Your task to perform on an android device: toggle pop-ups in chrome Image 0: 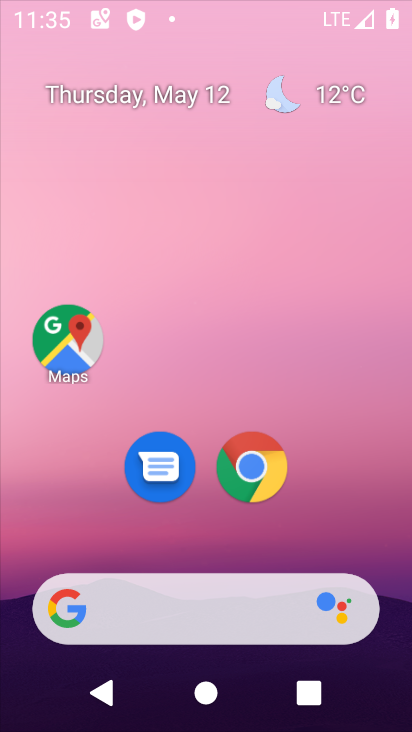
Step 0: drag from (256, 3) to (26, 110)
Your task to perform on an android device: toggle pop-ups in chrome Image 1: 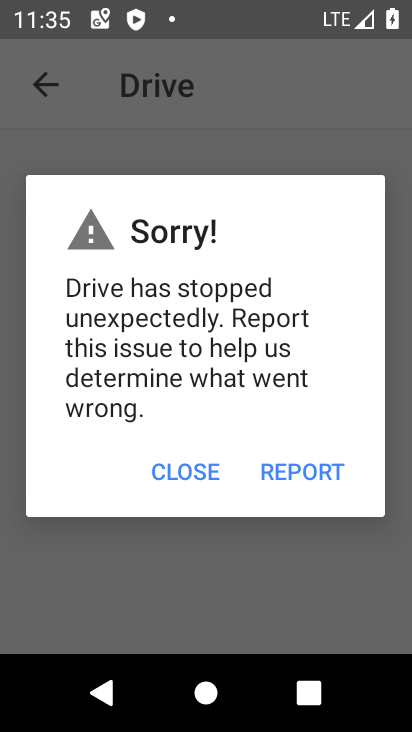
Step 1: press back button
Your task to perform on an android device: toggle pop-ups in chrome Image 2: 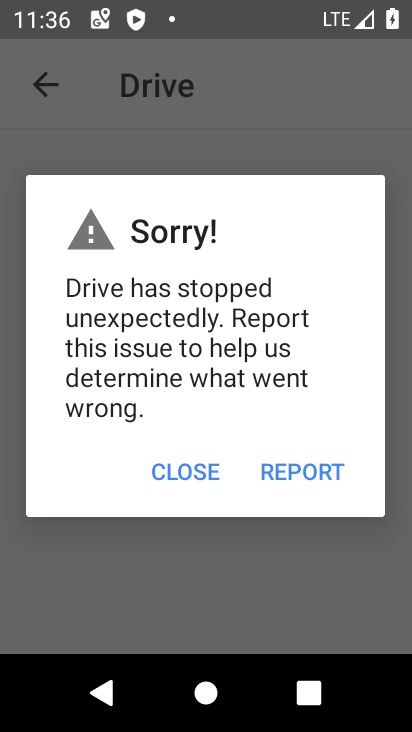
Step 2: press home button
Your task to perform on an android device: toggle pop-ups in chrome Image 3: 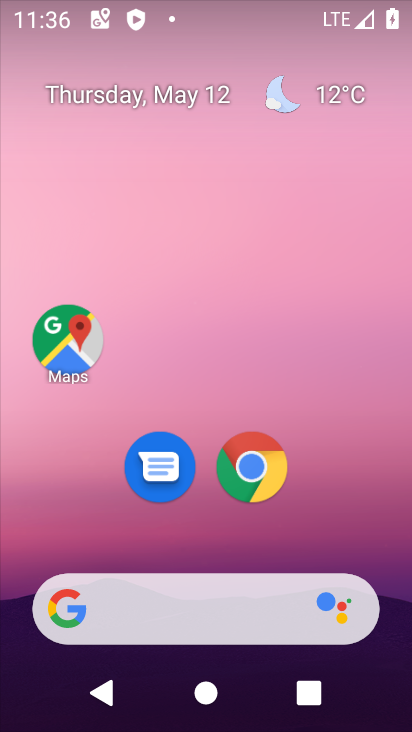
Step 3: drag from (349, 495) to (8, 185)
Your task to perform on an android device: toggle pop-ups in chrome Image 4: 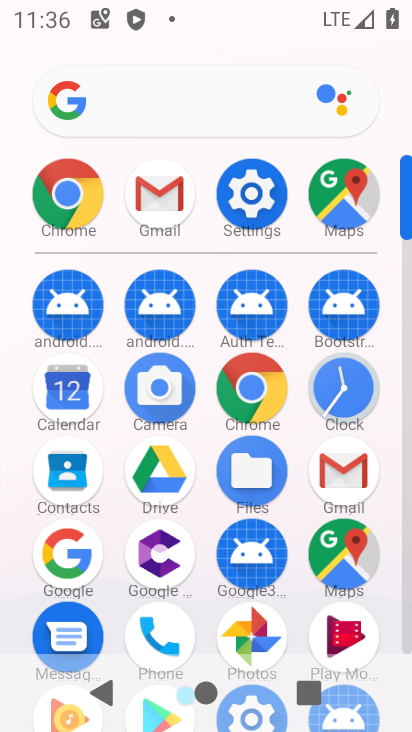
Step 4: click (66, 192)
Your task to perform on an android device: toggle pop-ups in chrome Image 5: 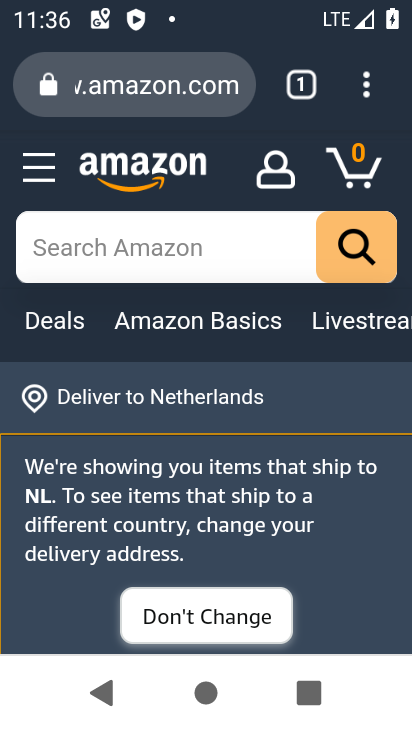
Step 5: drag from (367, 83) to (75, 487)
Your task to perform on an android device: toggle pop-ups in chrome Image 6: 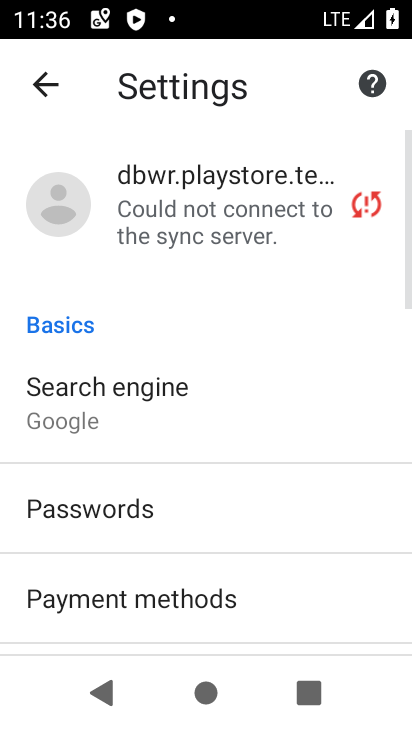
Step 6: drag from (199, 537) to (210, 197)
Your task to perform on an android device: toggle pop-ups in chrome Image 7: 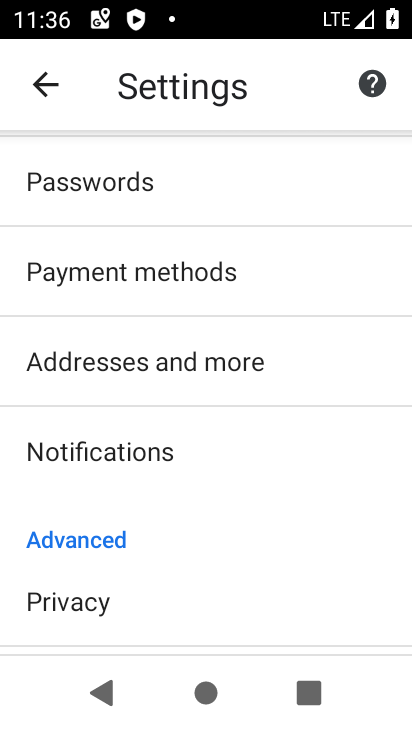
Step 7: drag from (210, 510) to (251, 204)
Your task to perform on an android device: toggle pop-ups in chrome Image 8: 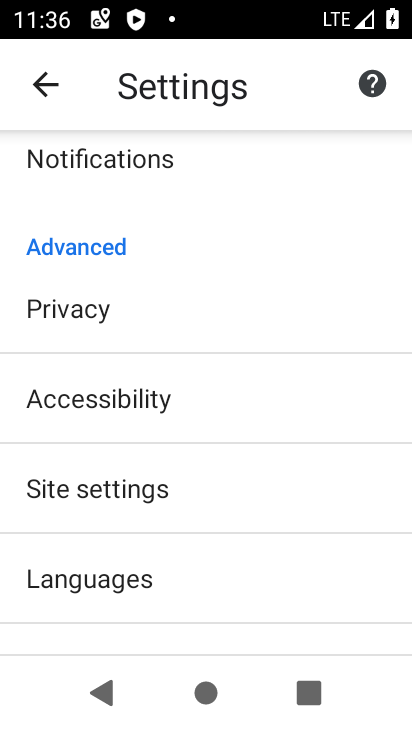
Step 8: drag from (206, 525) to (234, 174)
Your task to perform on an android device: toggle pop-ups in chrome Image 9: 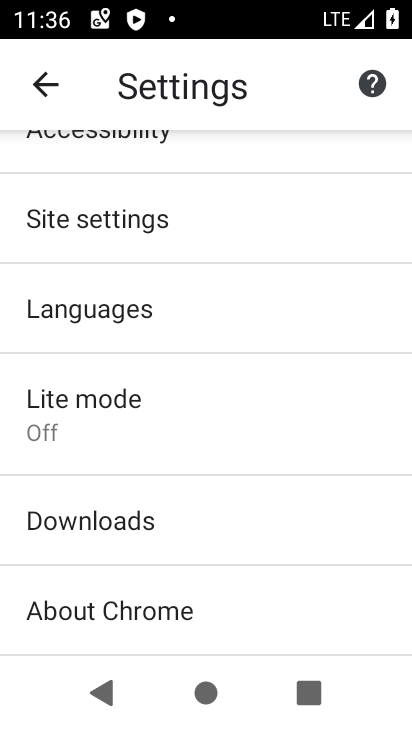
Step 9: drag from (159, 456) to (220, 135)
Your task to perform on an android device: toggle pop-ups in chrome Image 10: 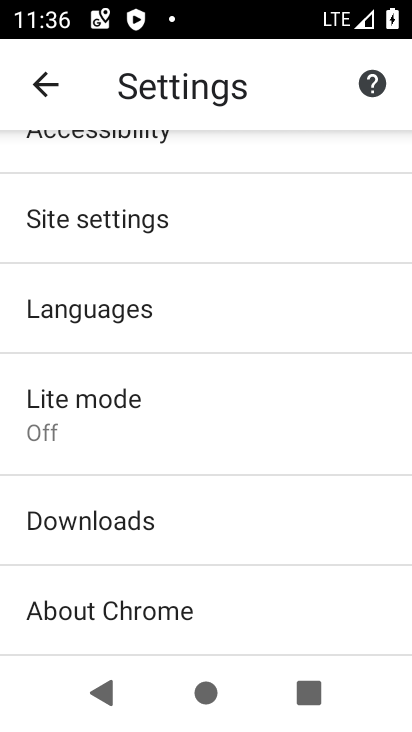
Step 10: drag from (175, 292) to (188, 454)
Your task to perform on an android device: toggle pop-ups in chrome Image 11: 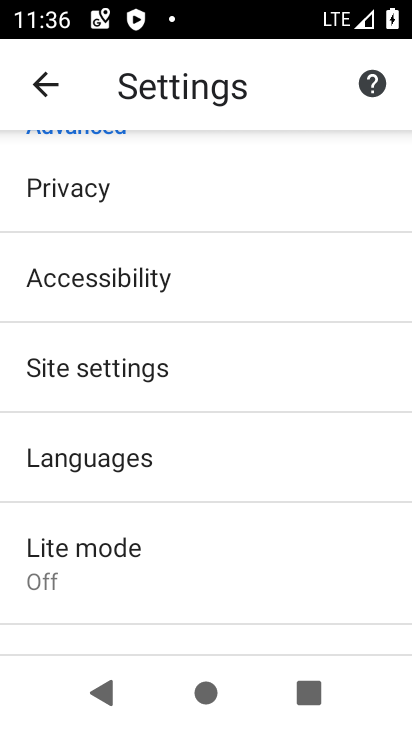
Step 11: click (183, 360)
Your task to perform on an android device: toggle pop-ups in chrome Image 12: 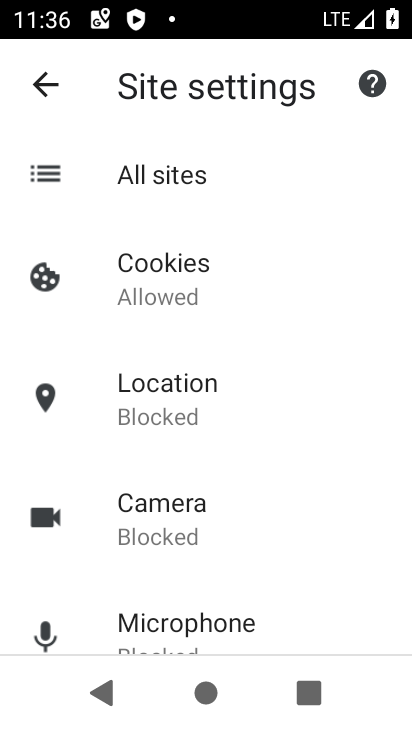
Step 12: drag from (258, 513) to (251, 175)
Your task to perform on an android device: toggle pop-ups in chrome Image 13: 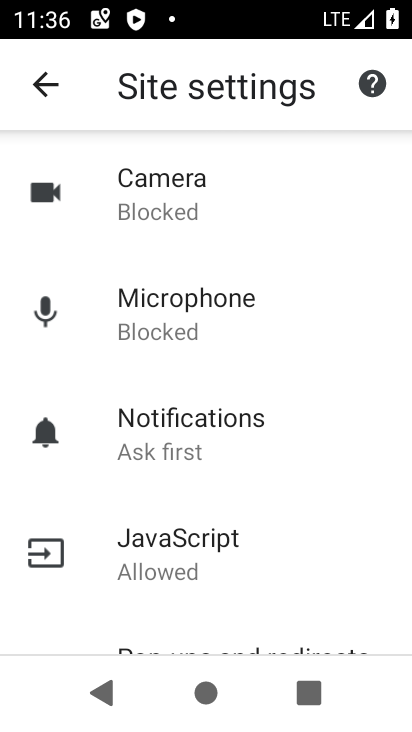
Step 13: drag from (213, 481) to (232, 199)
Your task to perform on an android device: toggle pop-ups in chrome Image 14: 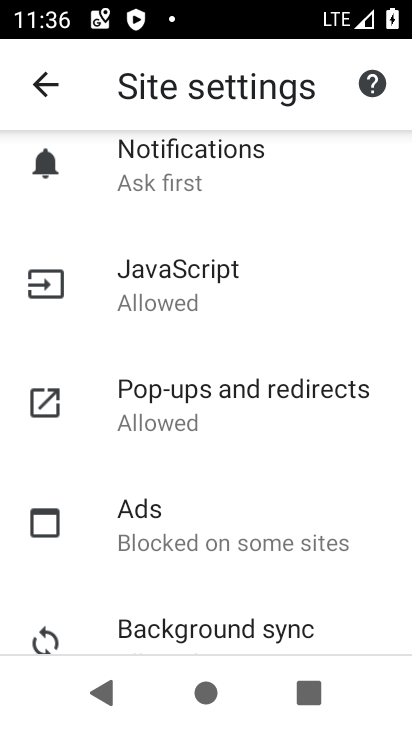
Step 14: click (190, 390)
Your task to perform on an android device: toggle pop-ups in chrome Image 15: 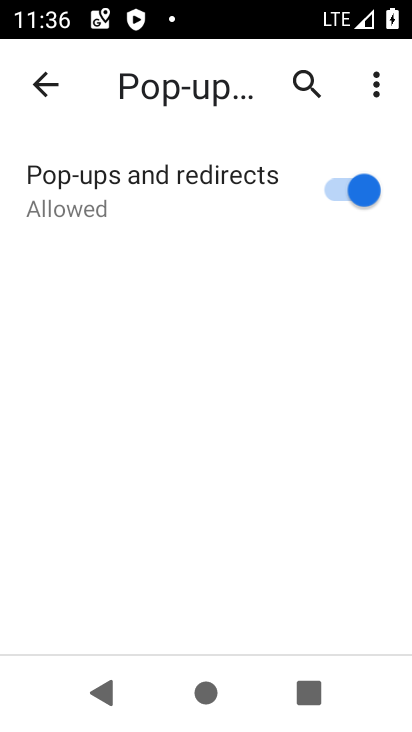
Step 15: click (354, 181)
Your task to perform on an android device: toggle pop-ups in chrome Image 16: 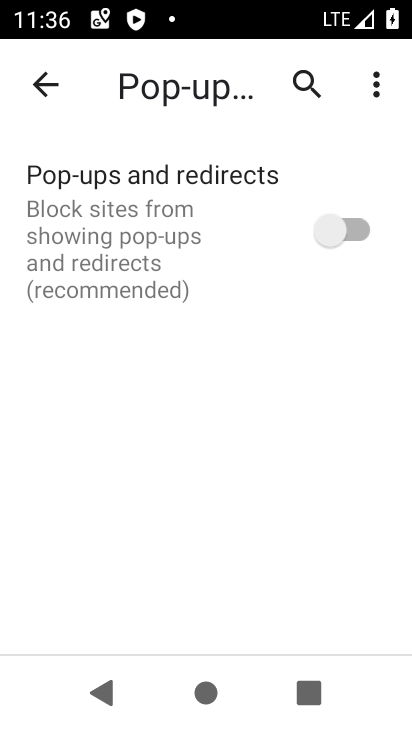
Step 16: task complete